Your task to perform on an android device: Open Youtube and go to "Your channel" Image 0: 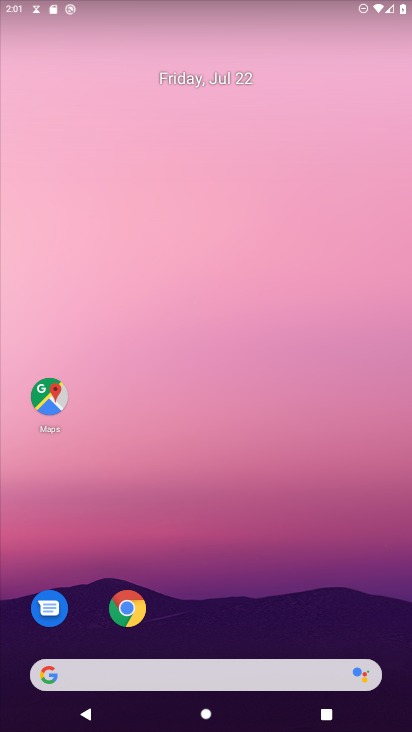
Step 0: drag from (271, 592) to (287, 0)
Your task to perform on an android device: Open Youtube and go to "Your channel" Image 1: 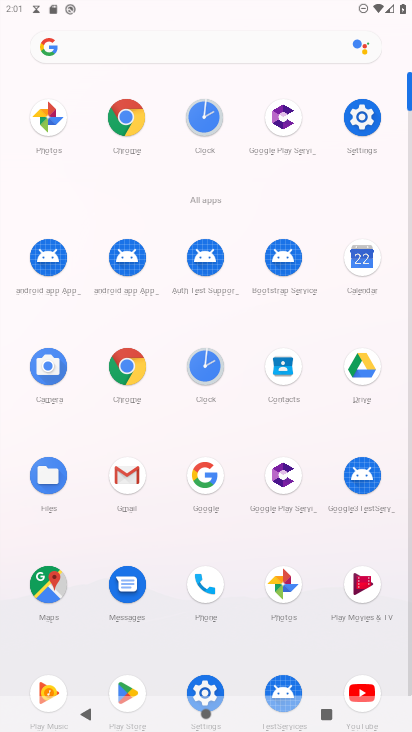
Step 1: click (366, 681)
Your task to perform on an android device: Open Youtube and go to "Your channel" Image 2: 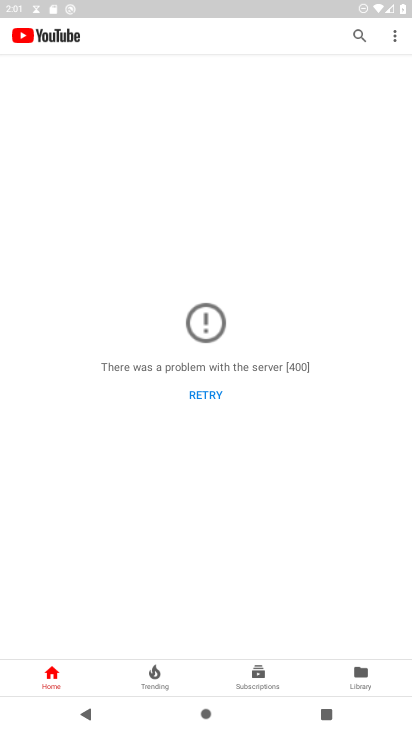
Step 2: click (209, 393)
Your task to perform on an android device: Open Youtube and go to "Your channel" Image 3: 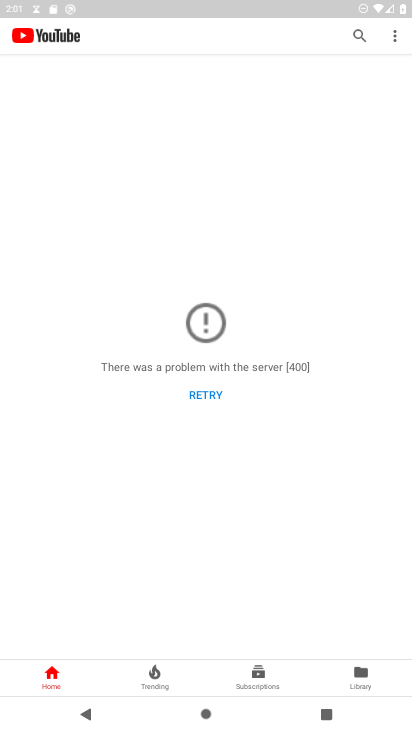
Step 3: click (209, 393)
Your task to perform on an android device: Open Youtube and go to "Your channel" Image 4: 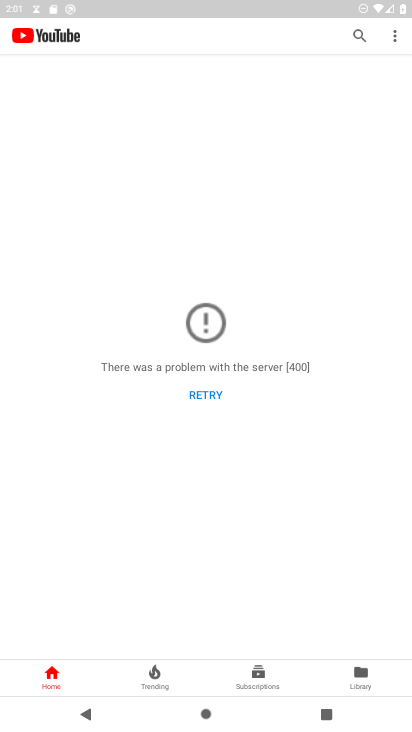
Step 4: task complete